Your task to perform on an android device: Open Youtube and go to "Your channel" Image 0: 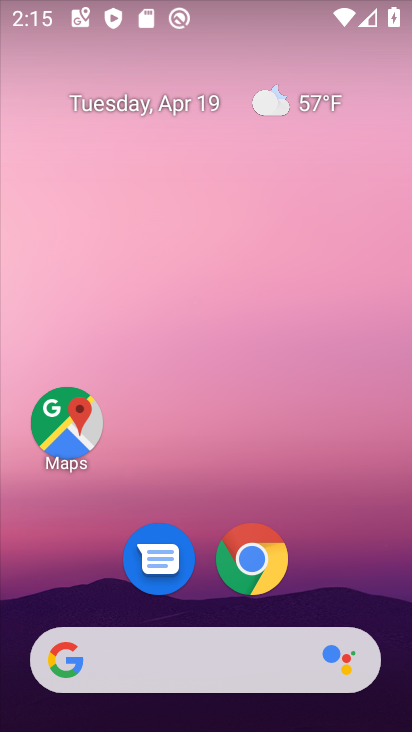
Step 0: drag from (211, 581) to (194, 53)
Your task to perform on an android device: Open Youtube and go to "Your channel" Image 1: 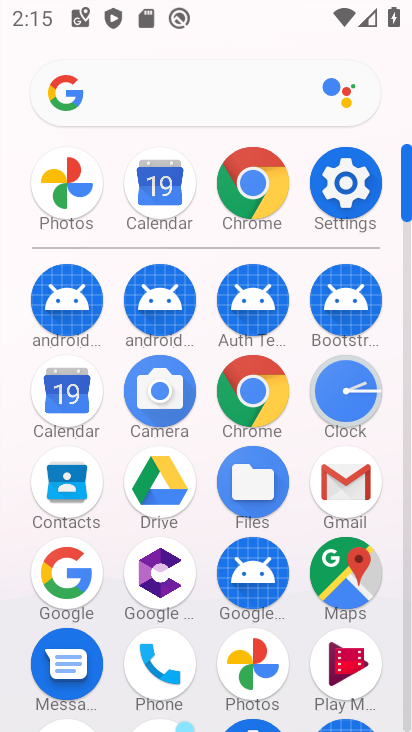
Step 1: drag from (203, 604) to (209, 229)
Your task to perform on an android device: Open Youtube and go to "Your channel" Image 2: 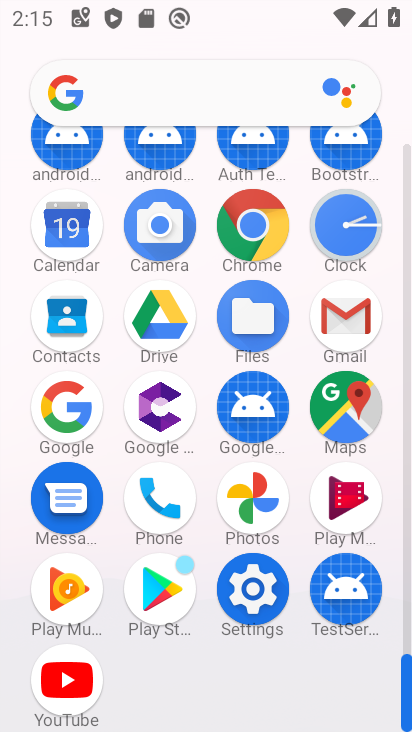
Step 2: click (61, 673)
Your task to perform on an android device: Open Youtube and go to "Your channel" Image 3: 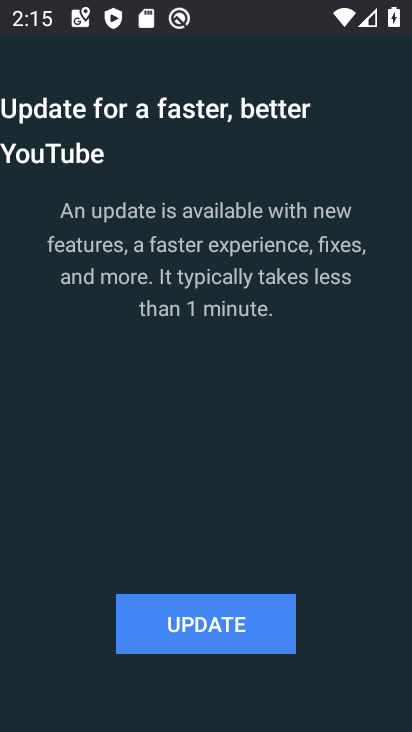
Step 3: click (212, 624)
Your task to perform on an android device: Open Youtube and go to "Your channel" Image 4: 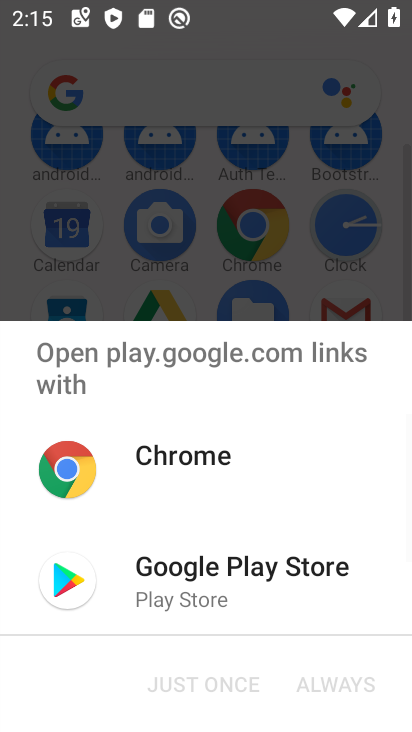
Step 4: click (122, 586)
Your task to perform on an android device: Open Youtube and go to "Your channel" Image 5: 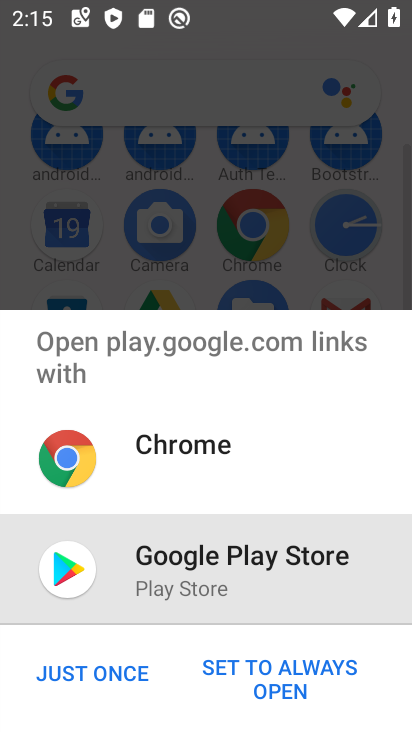
Step 5: click (86, 682)
Your task to perform on an android device: Open Youtube and go to "Your channel" Image 6: 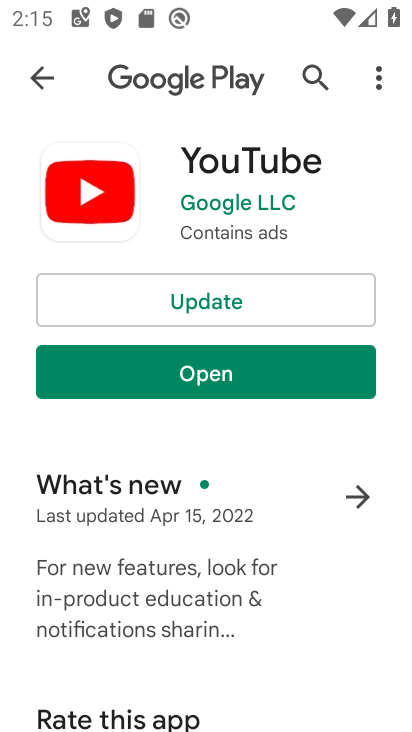
Step 6: click (212, 300)
Your task to perform on an android device: Open Youtube and go to "Your channel" Image 7: 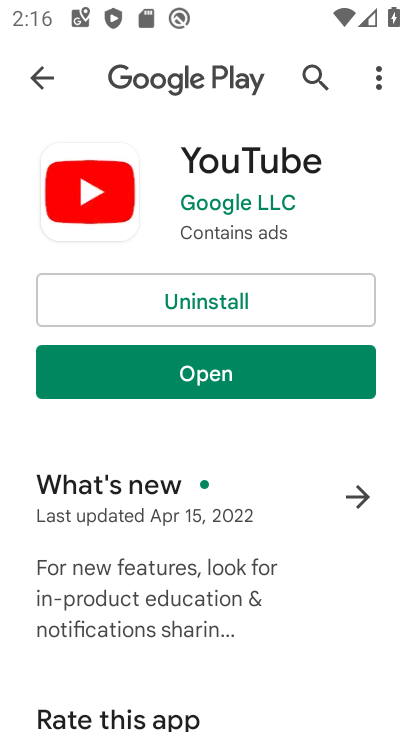
Step 7: click (204, 379)
Your task to perform on an android device: Open Youtube and go to "Your channel" Image 8: 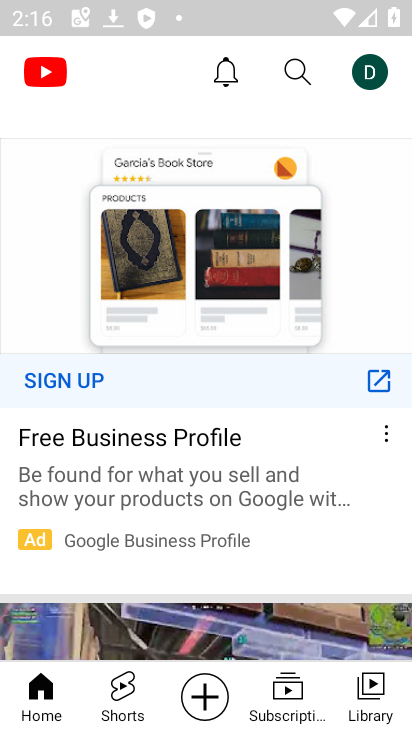
Step 8: click (373, 69)
Your task to perform on an android device: Open Youtube and go to "Your channel" Image 9: 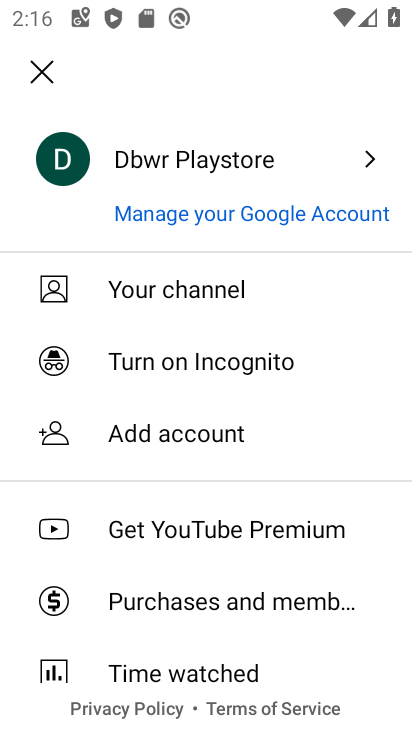
Step 9: click (248, 281)
Your task to perform on an android device: Open Youtube and go to "Your channel" Image 10: 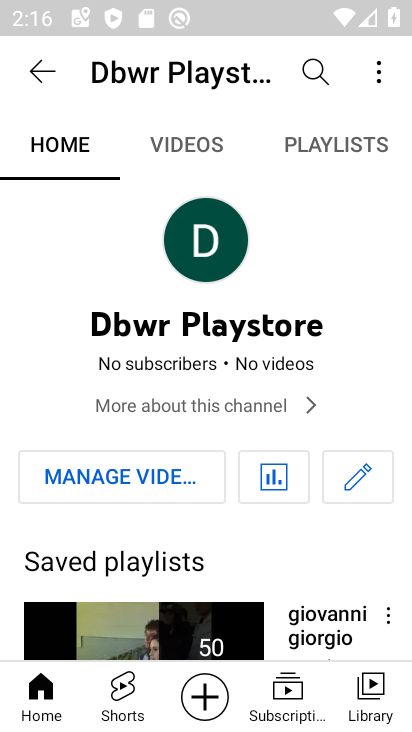
Step 10: task complete